Your task to perform on an android device: open chrome privacy settings Image 0: 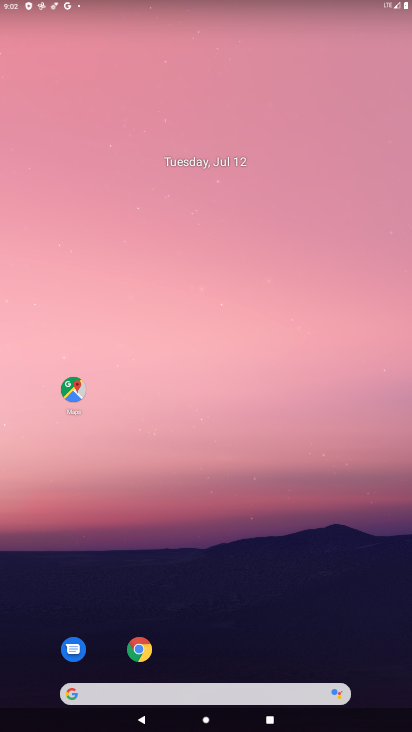
Step 0: click (146, 641)
Your task to perform on an android device: open chrome privacy settings Image 1: 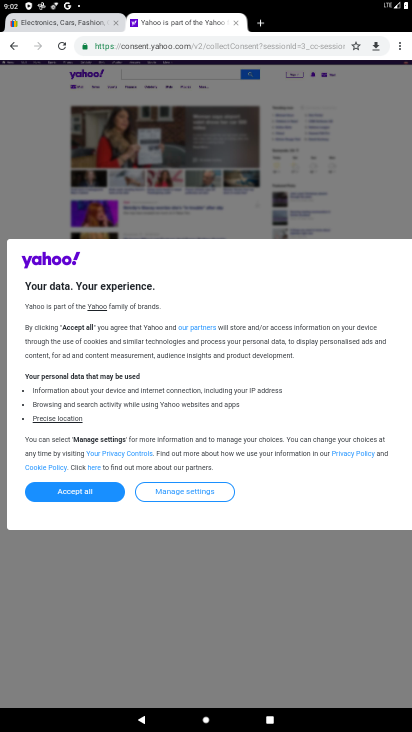
Step 1: click (94, 491)
Your task to perform on an android device: open chrome privacy settings Image 2: 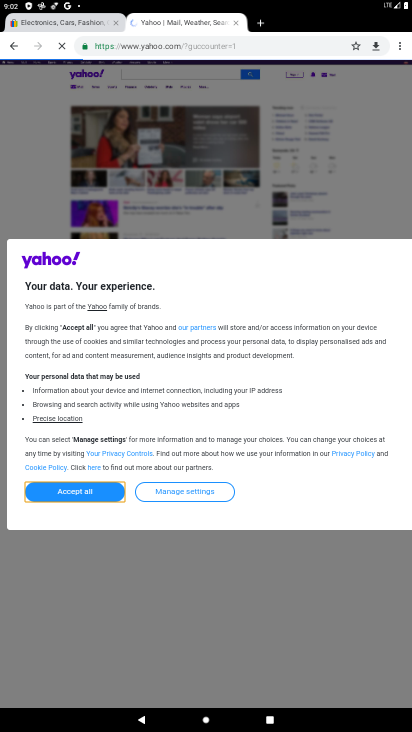
Step 2: click (399, 50)
Your task to perform on an android device: open chrome privacy settings Image 3: 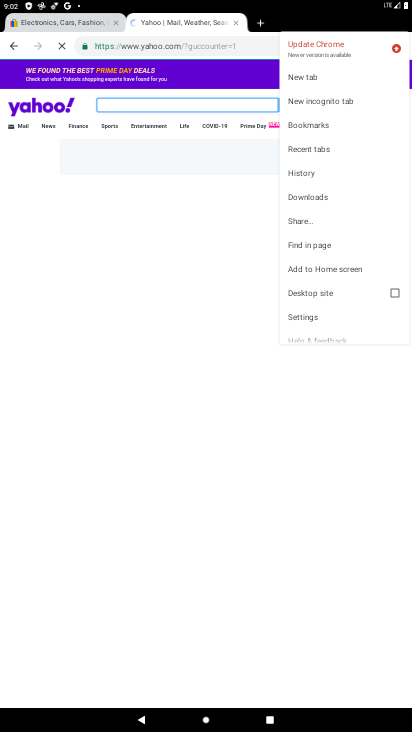
Step 3: click (314, 318)
Your task to perform on an android device: open chrome privacy settings Image 4: 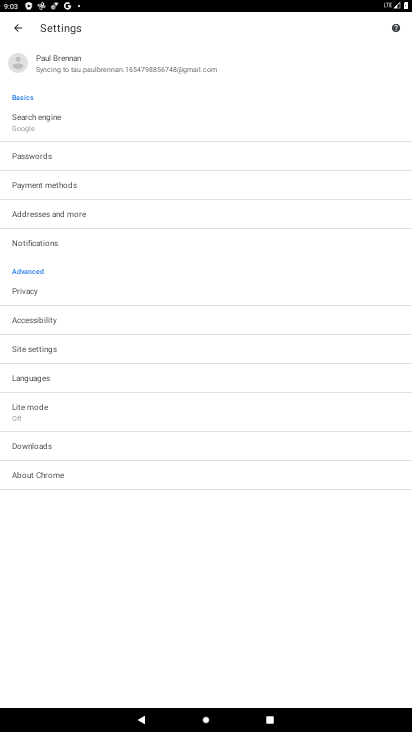
Step 4: click (132, 293)
Your task to perform on an android device: open chrome privacy settings Image 5: 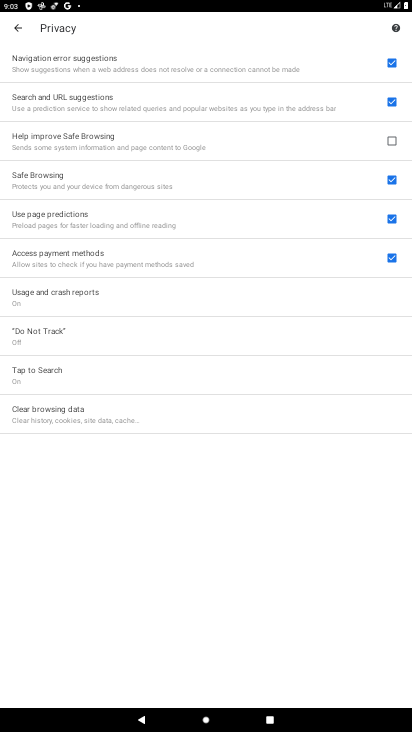
Step 5: task complete